Your task to perform on an android device: clear all cookies in the chrome app Image 0: 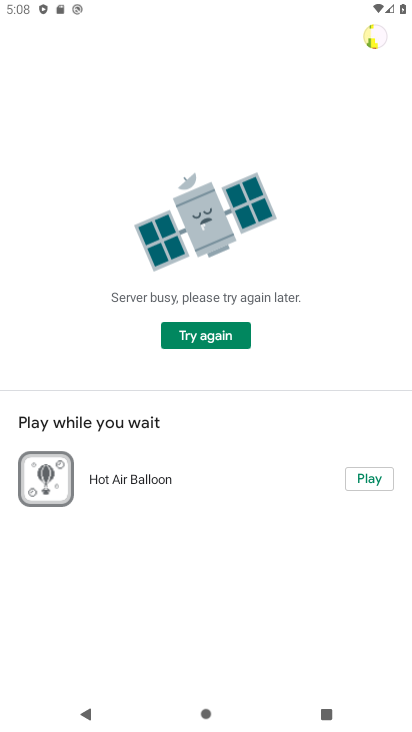
Step 0: press home button
Your task to perform on an android device: clear all cookies in the chrome app Image 1: 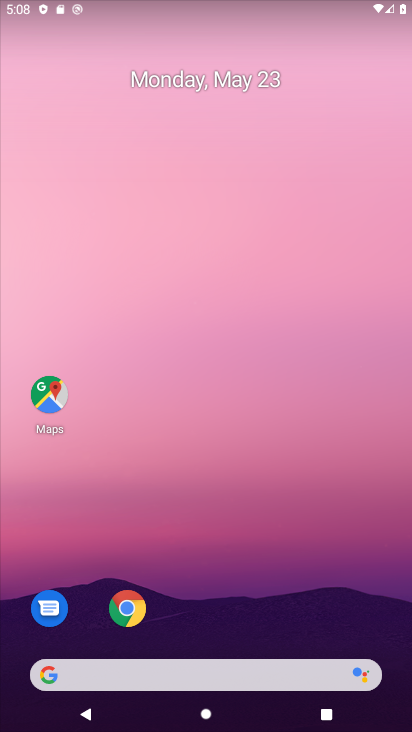
Step 1: drag from (4, 692) to (233, 146)
Your task to perform on an android device: clear all cookies in the chrome app Image 2: 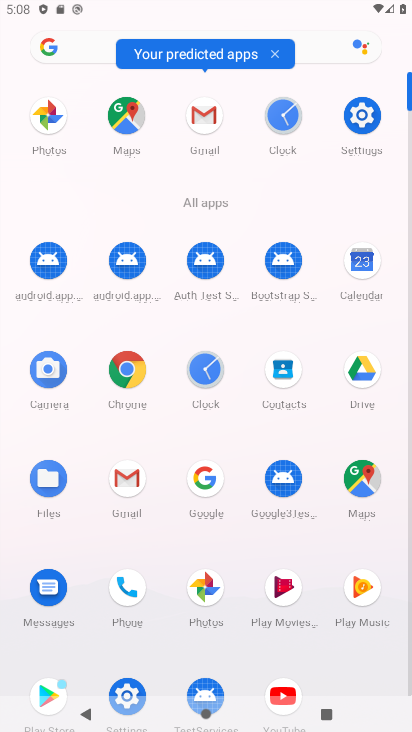
Step 2: click (121, 367)
Your task to perform on an android device: clear all cookies in the chrome app Image 3: 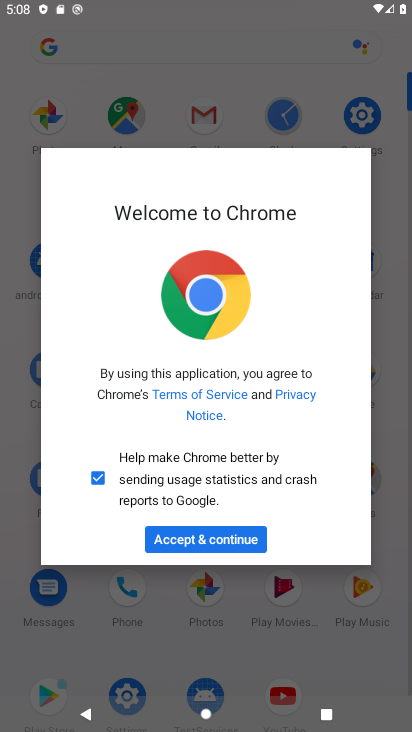
Step 3: click (211, 540)
Your task to perform on an android device: clear all cookies in the chrome app Image 4: 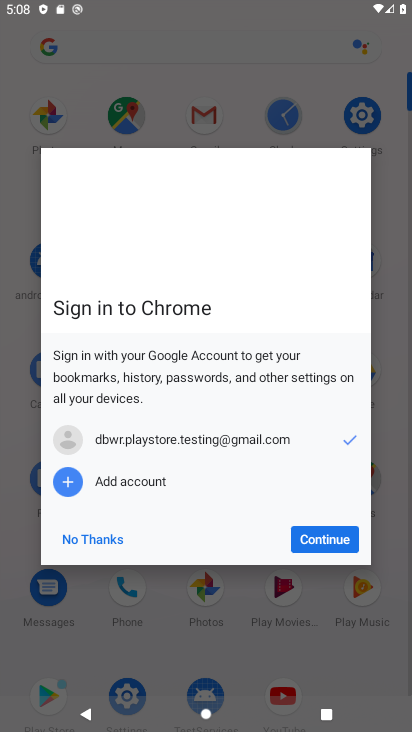
Step 4: click (82, 543)
Your task to perform on an android device: clear all cookies in the chrome app Image 5: 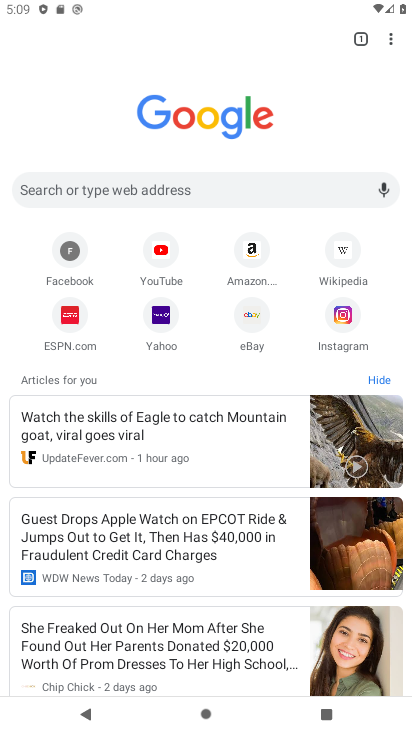
Step 5: click (388, 36)
Your task to perform on an android device: clear all cookies in the chrome app Image 6: 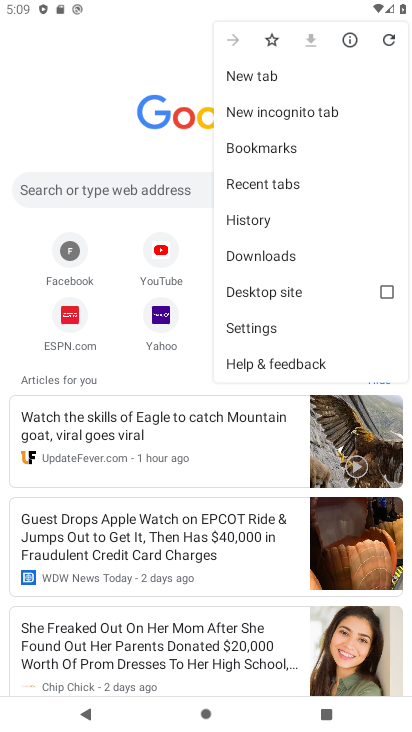
Step 6: click (259, 329)
Your task to perform on an android device: clear all cookies in the chrome app Image 7: 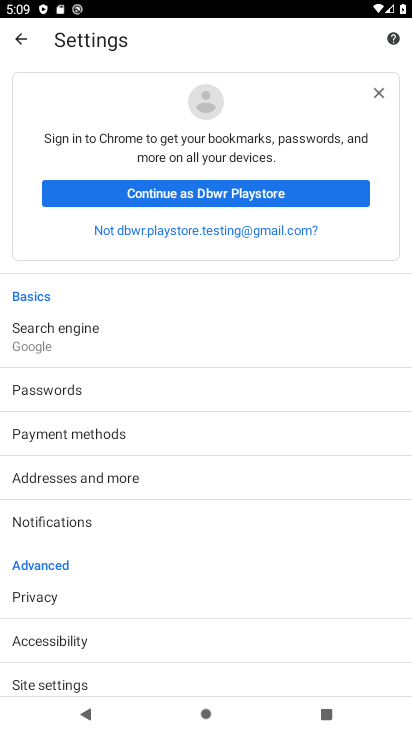
Step 7: click (152, 202)
Your task to perform on an android device: clear all cookies in the chrome app Image 8: 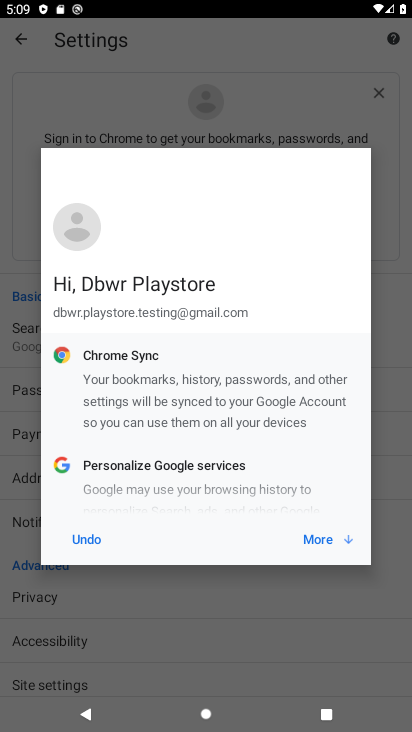
Step 8: click (380, 94)
Your task to perform on an android device: clear all cookies in the chrome app Image 9: 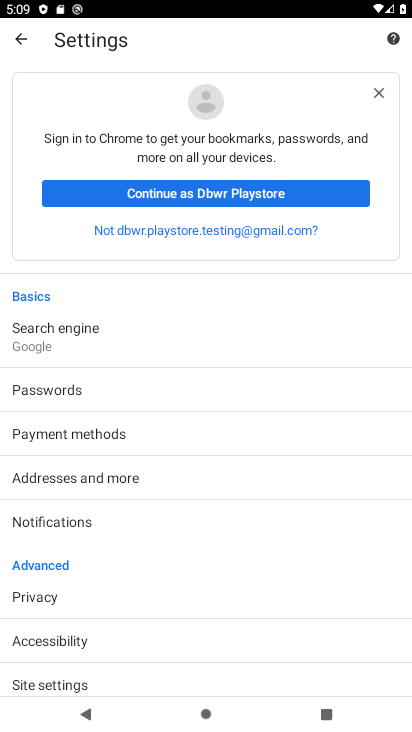
Step 9: click (380, 91)
Your task to perform on an android device: clear all cookies in the chrome app Image 10: 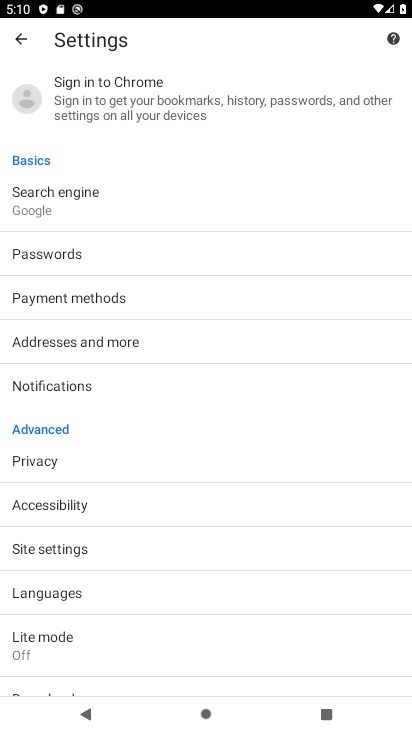
Step 10: click (110, 551)
Your task to perform on an android device: clear all cookies in the chrome app Image 11: 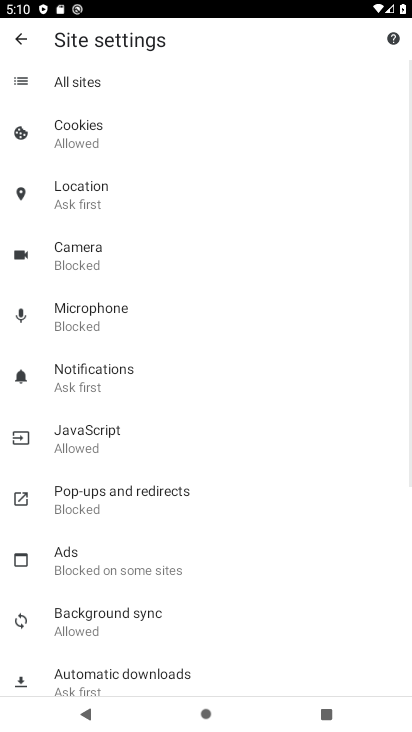
Step 11: click (63, 121)
Your task to perform on an android device: clear all cookies in the chrome app Image 12: 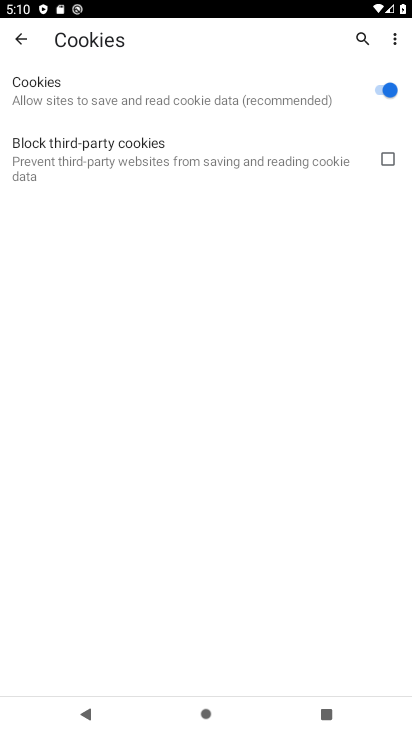
Step 12: task complete